Your task to perform on an android device: toggle show notifications on the lock screen Image 0: 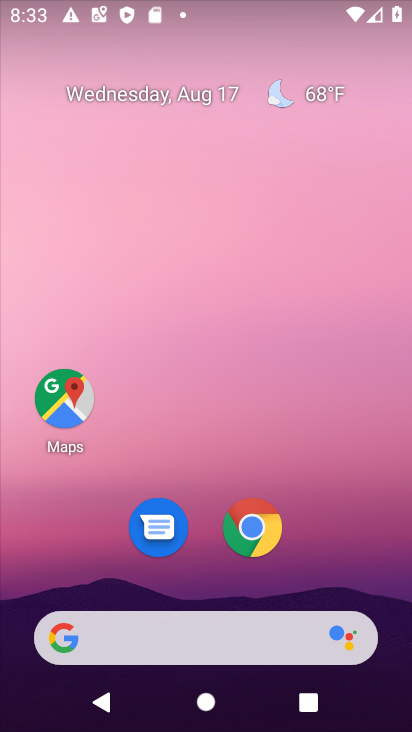
Step 0: drag from (203, 584) to (261, 132)
Your task to perform on an android device: toggle show notifications on the lock screen Image 1: 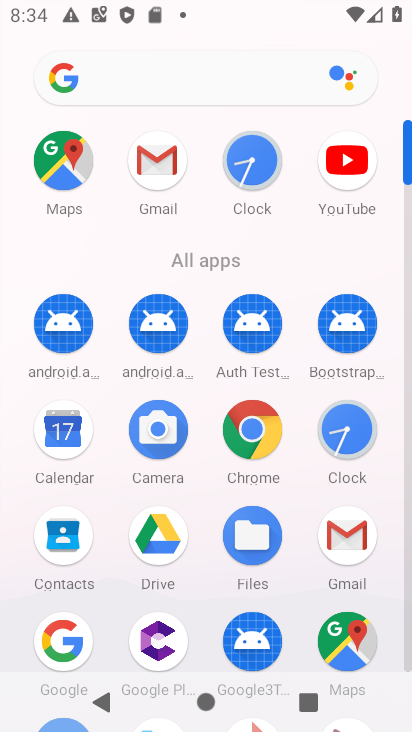
Step 1: drag from (111, 626) to (169, 111)
Your task to perform on an android device: toggle show notifications on the lock screen Image 2: 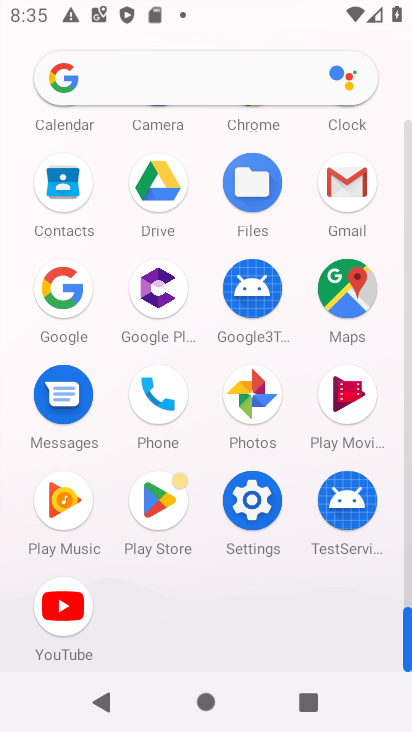
Step 2: click (258, 508)
Your task to perform on an android device: toggle show notifications on the lock screen Image 3: 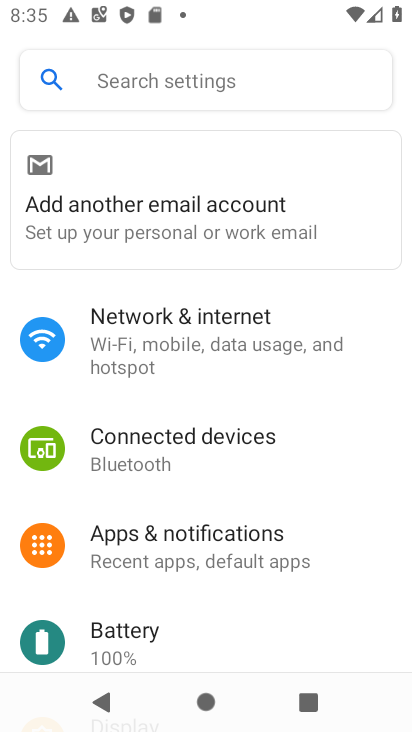
Step 3: click (170, 566)
Your task to perform on an android device: toggle show notifications on the lock screen Image 4: 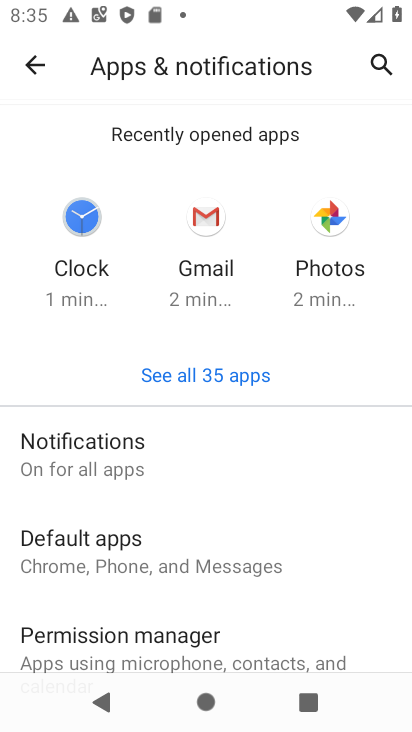
Step 4: click (105, 443)
Your task to perform on an android device: toggle show notifications on the lock screen Image 5: 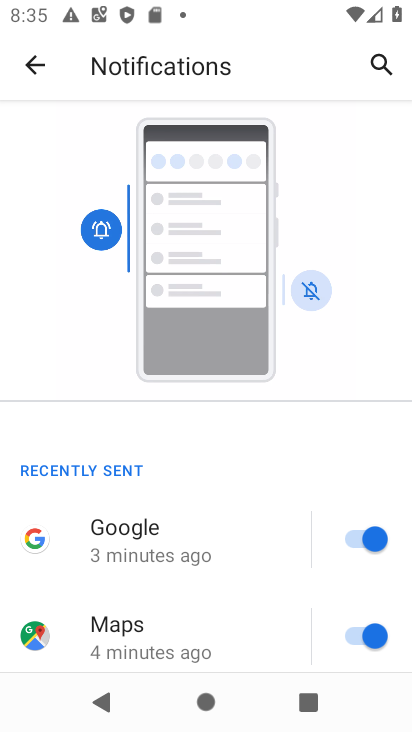
Step 5: drag from (157, 644) to (258, 265)
Your task to perform on an android device: toggle show notifications on the lock screen Image 6: 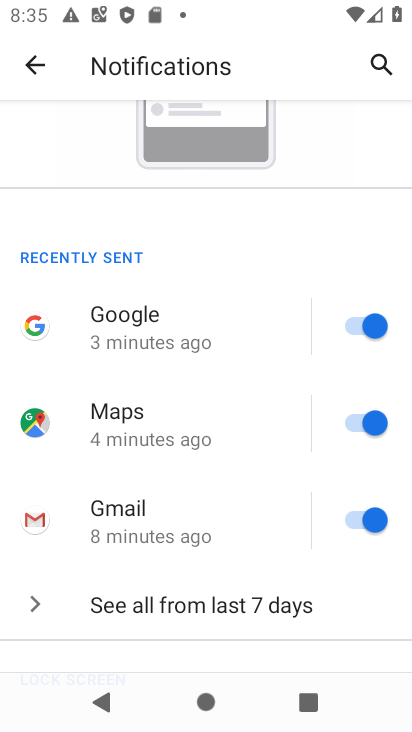
Step 6: drag from (193, 622) to (294, 170)
Your task to perform on an android device: toggle show notifications on the lock screen Image 7: 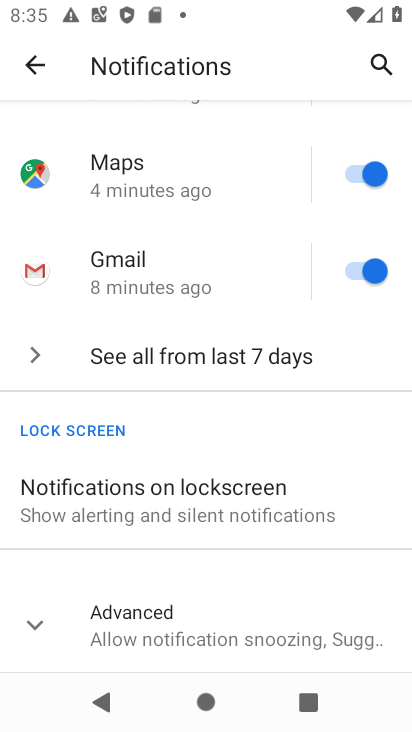
Step 7: click (213, 472)
Your task to perform on an android device: toggle show notifications on the lock screen Image 8: 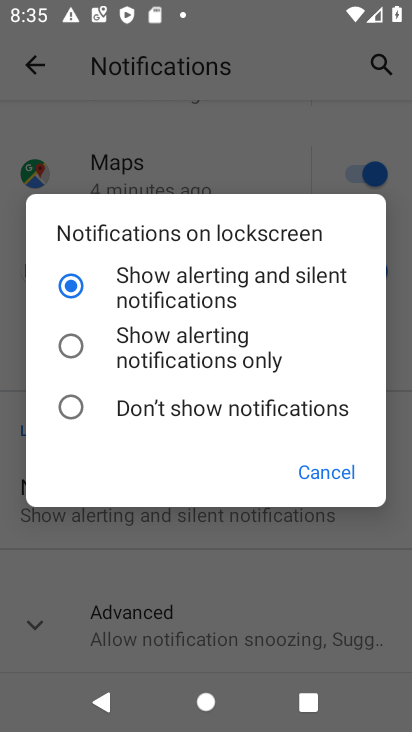
Step 8: click (171, 353)
Your task to perform on an android device: toggle show notifications on the lock screen Image 9: 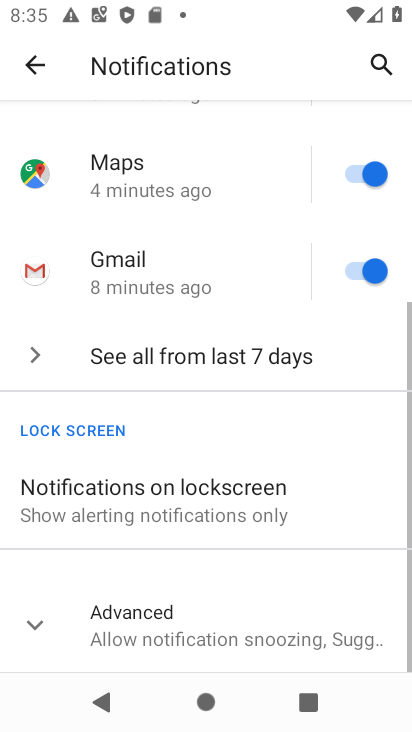
Step 9: task complete